Your task to perform on an android device: snooze an email in the gmail app Image 0: 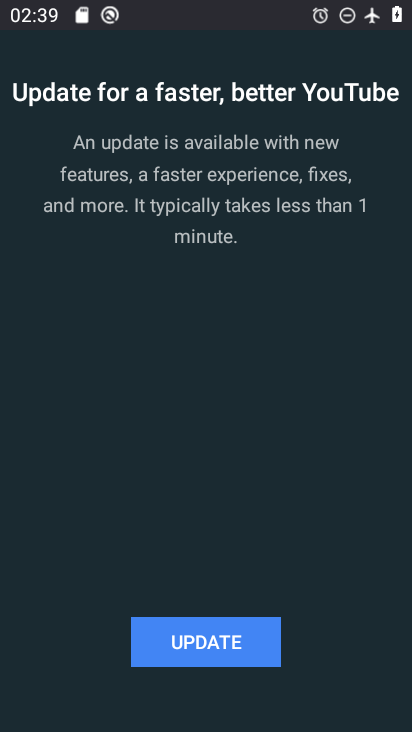
Step 0: press home button
Your task to perform on an android device: snooze an email in the gmail app Image 1: 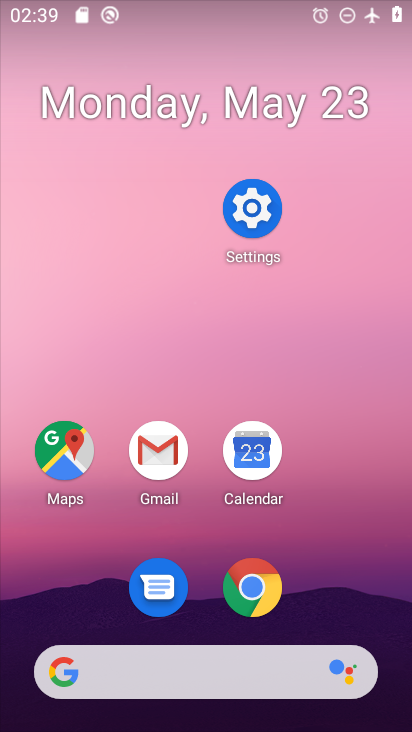
Step 1: click (172, 457)
Your task to perform on an android device: snooze an email in the gmail app Image 2: 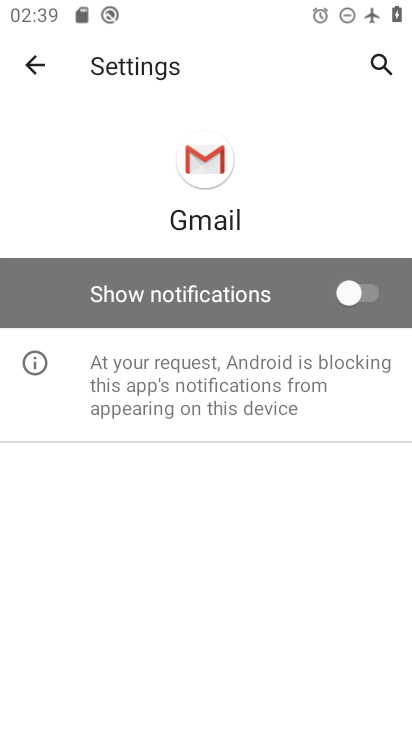
Step 2: click (32, 79)
Your task to perform on an android device: snooze an email in the gmail app Image 3: 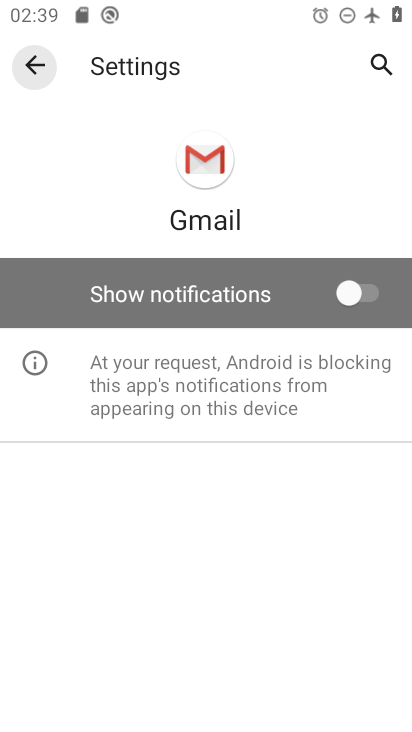
Step 3: click (32, 79)
Your task to perform on an android device: snooze an email in the gmail app Image 4: 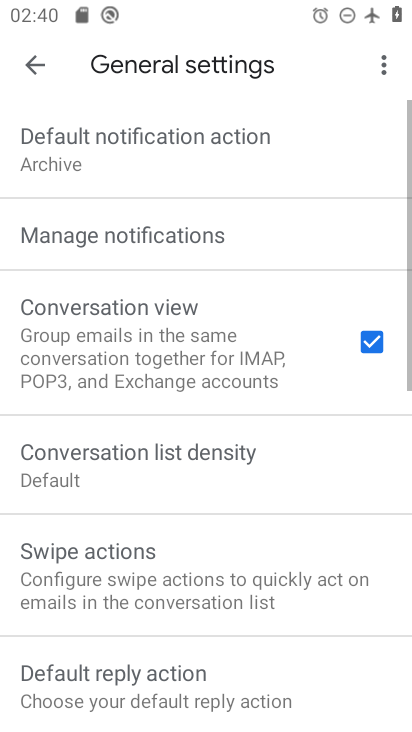
Step 4: click (32, 79)
Your task to perform on an android device: snooze an email in the gmail app Image 5: 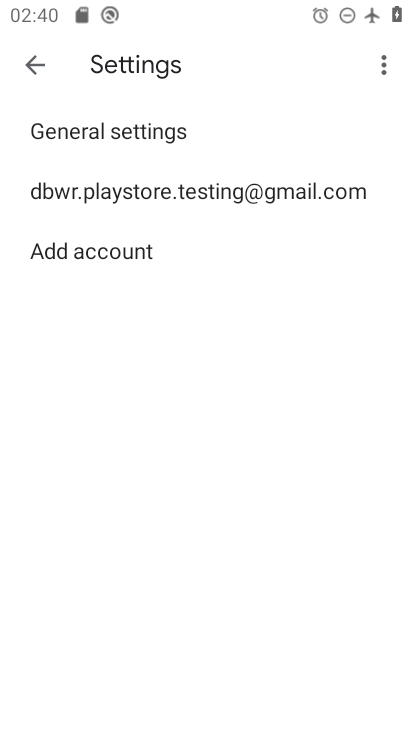
Step 5: click (32, 79)
Your task to perform on an android device: snooze an email in the gmail app Image 6: 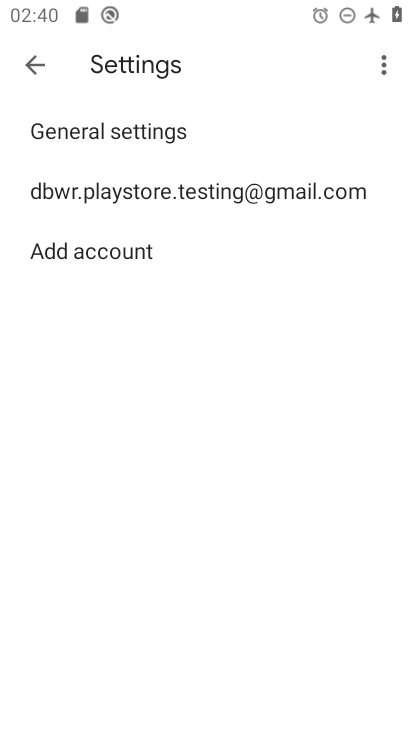
Step 6: click (32, 79)
Your task to perform on an android device: snooze an email in the gmail app Image 7: 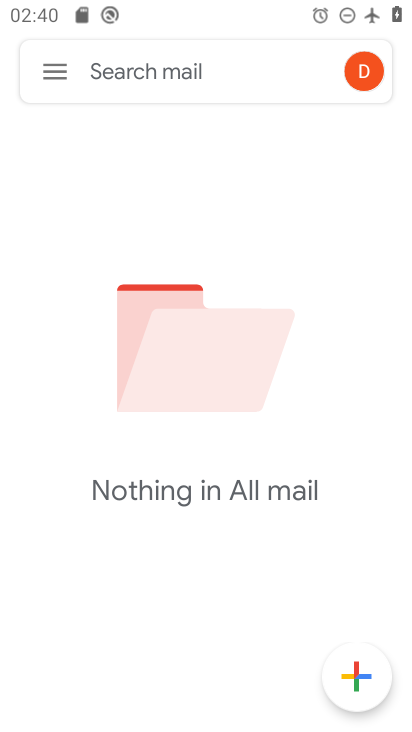
Step 7: click (50, 79)
Your task to perform on an android device: snooze an email in the gmail app Image 8: 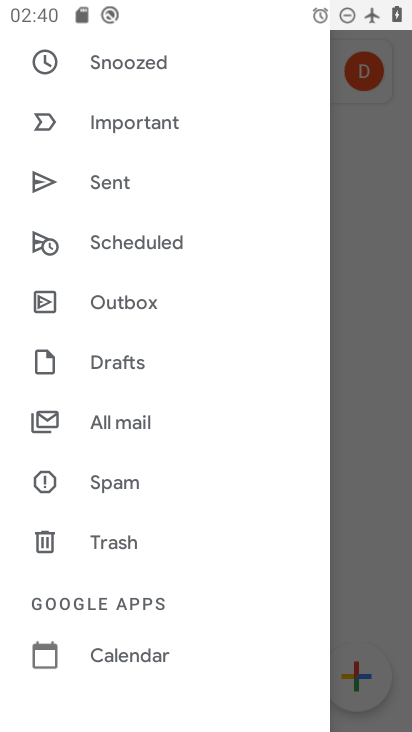
Step 8: click (145, 428)
Your task to perform on an android device: snooze an email in the gmail app Image 9: 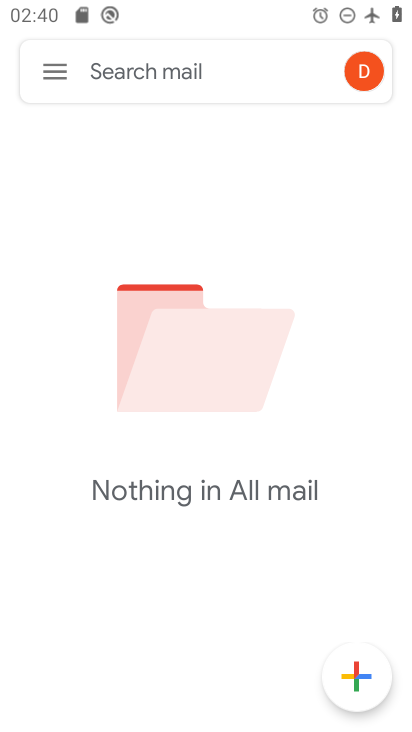
Step 9: task complete